Your task to perform on an android device: make emails show in primary in the gmail app Image 0: 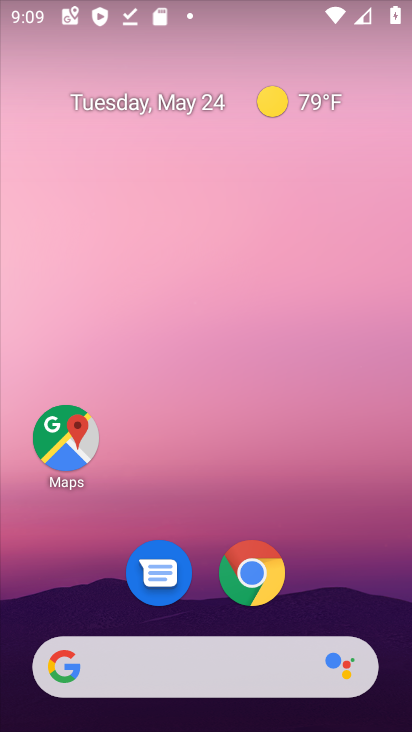
Step 0: click (243, 113)
Your task to perform on an android device: make emails show in primary in the gmail app Image 1: 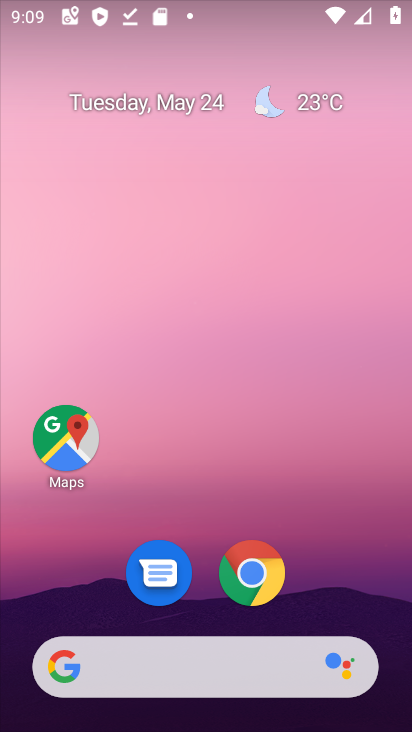
Step 1: drag from (306, 674) to (192, 244)
Your task to perform on an android device: make emails show in primary in the gmail app Image 2: 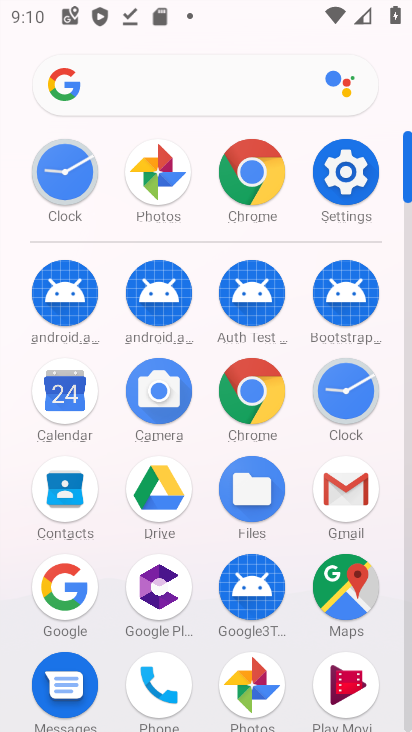
Step 2: click (325, 484)
Your task to perform on an android device: make emails show in primary in the gmail app Image 3: 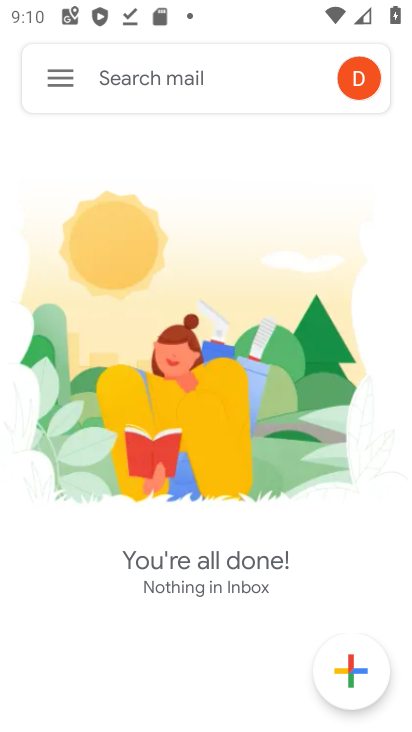
Step 3: click (69, 88)
Your task to perform on an android device: make emails show in primary in the gmail app Image 4: 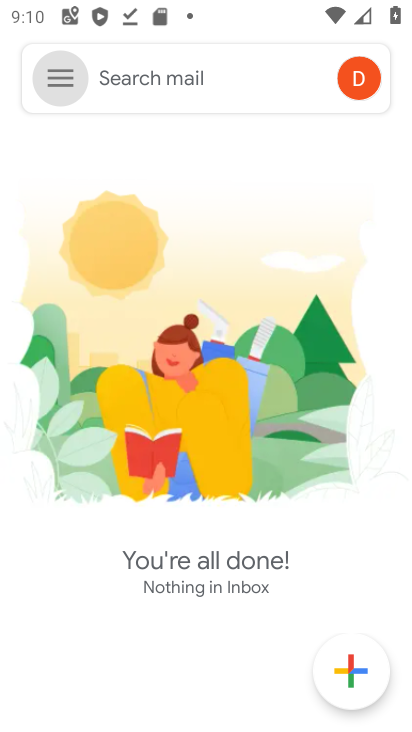
Step 4: click (69, 88)
Your task to perform on an android device: make emails show in primary in the gmail app Image 5: 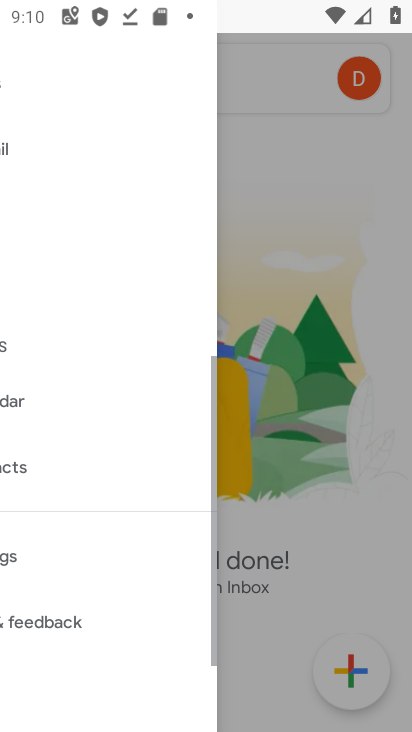
Step 5: click (69, 88)
Your task to perform on an android device: make emails show in primary in the gmail app Image 6: 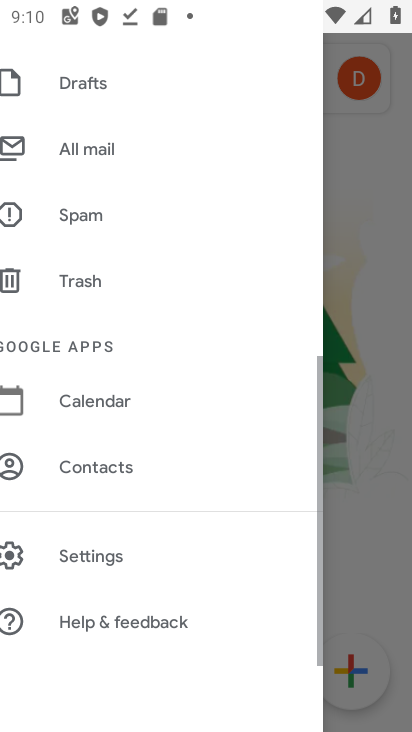
Step 6: click (69, 88)
Your task to perform on an android device: make emails show in primary in the gmail app Image 7: 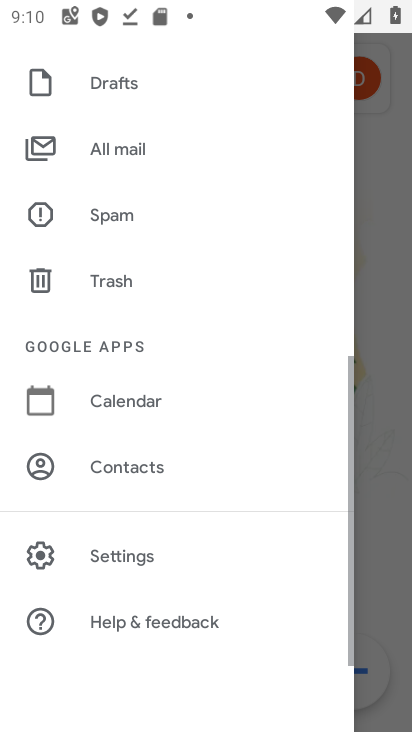
Step 7: click (69, 88)
Your task to perform on an android device: make emails show in primary in the gmail app Image 8: 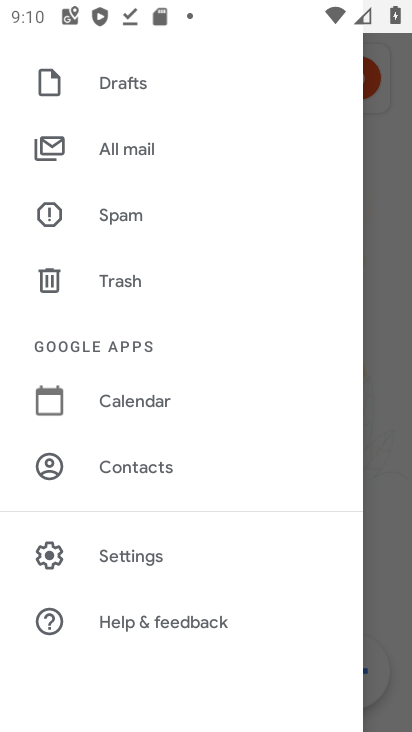
Step 8: click (125, 552)
Your task to perform on an android device: make emails show in primary in the gmail app Image 9: 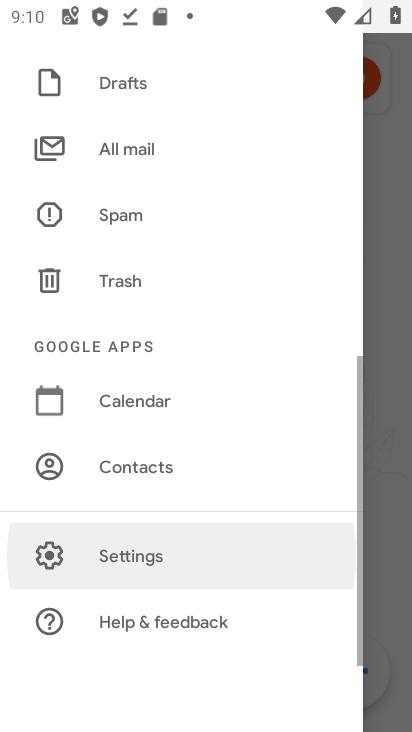
Step 9: click (125, 553)
Your task to perform on an android device: make emails show in primary in the gmail app Image 10: 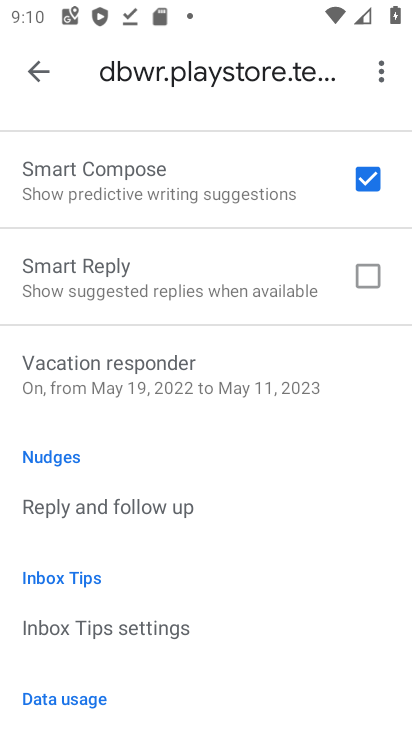
Step 10: drag from (120, 305) to (120, 525)
Your task to perform on an android device: make emails show in primary in the gmail app Image 11: 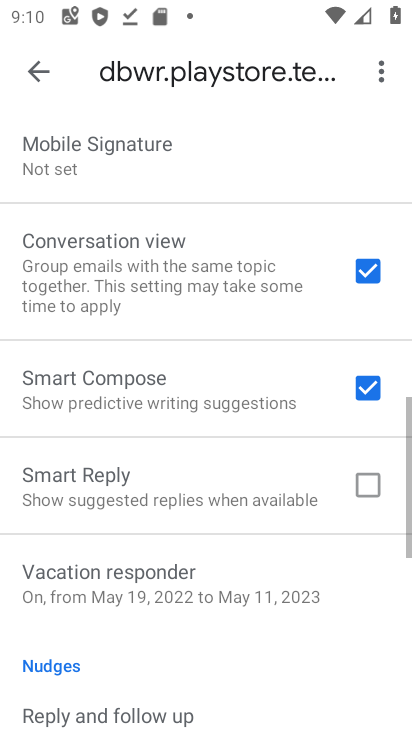
Step 11: drag from (214, 280) to (179, 628)
Your task to perform on an android device: make emails show in primary in the gmail app Image 12: 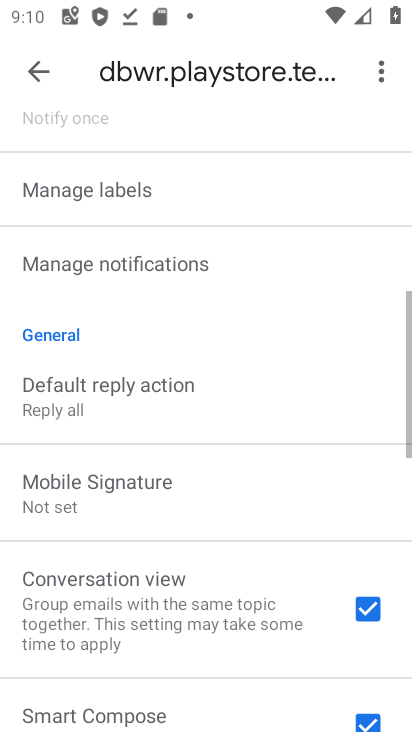
Step 12: drag from (148, 318) to (211, 456)
Your task to perform on an android device: make emails show in primary in the gmail app Image 13: 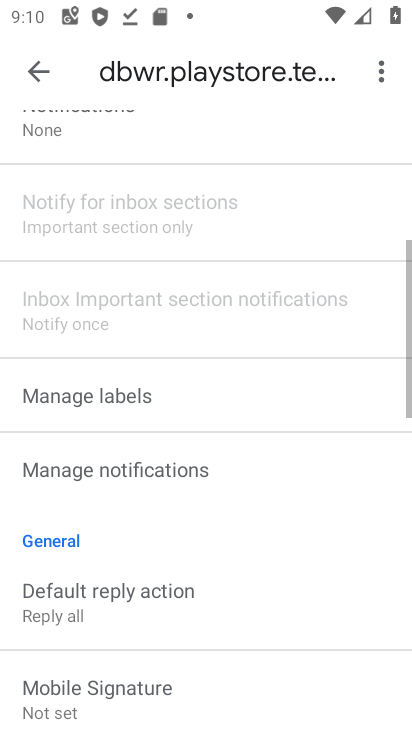
Step 13: drag from (200, 315) to (200, 676)
Your task to perform on an android device: make emails show in primary in the gmail app Image 14: 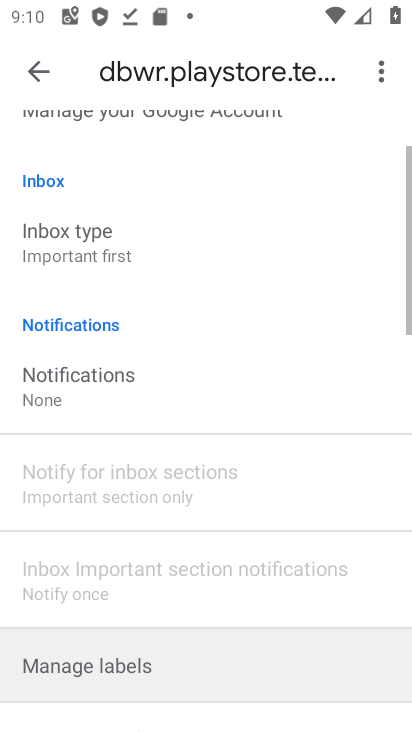
Step 14: drag from (78, 259) to (143, 598)
Your task to perform on an android device: make emails show in primary in the gmail app Image 15: 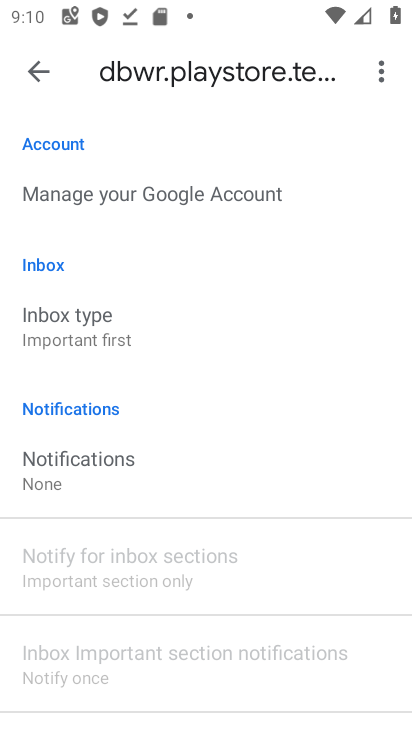
Step 15: click (66, 329)
Your task to perform on an android device: make emails show in primary in the gmail app Image 16: 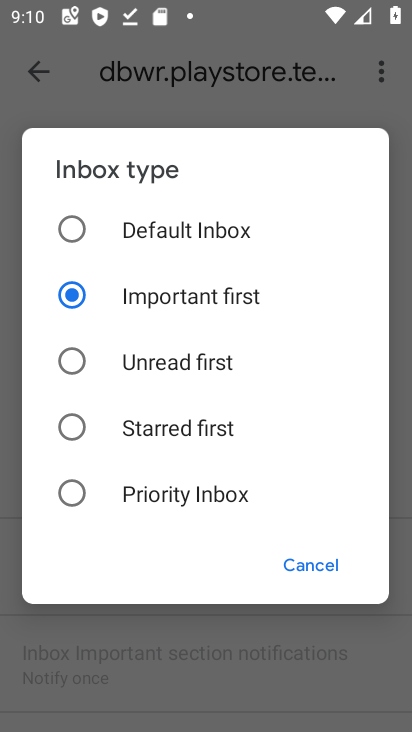
Step 16: click (72, 235)
Your task to perform on an android device: make emails show in primary in the gmail app Image 17: 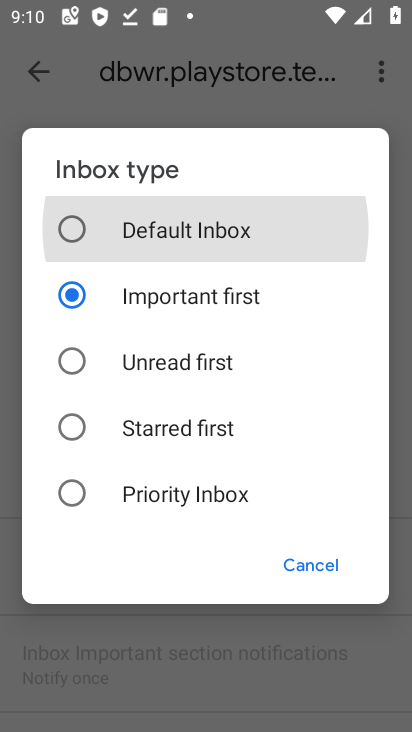
Step 17: click (77, 231)
Your task to perform on an android device: make emails show in primary in the gmail app Image 18: 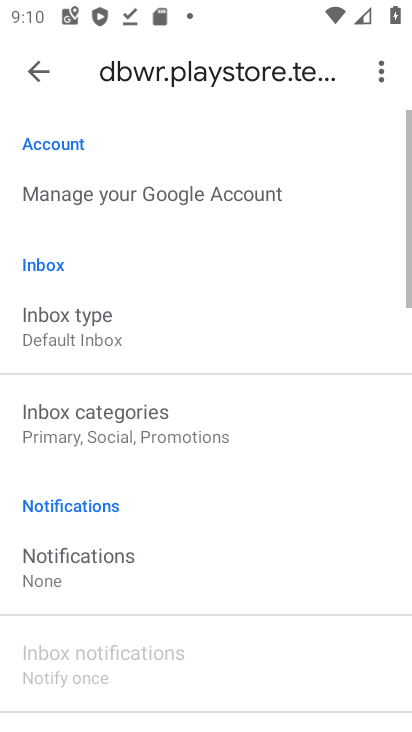
Step 18: click (79, 230)
Your task to perform on an android device: make emails show in primary in the gmail app Image 19: 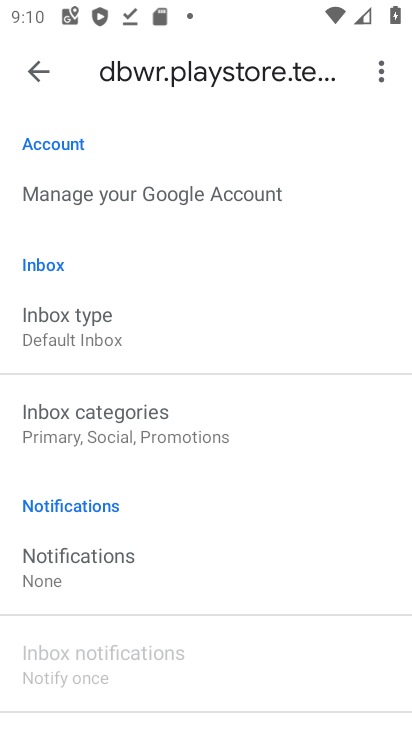
Step 19: click (105, 411)
Your task to perform on an android device: make emails show in primary in the gmail app Image 20: 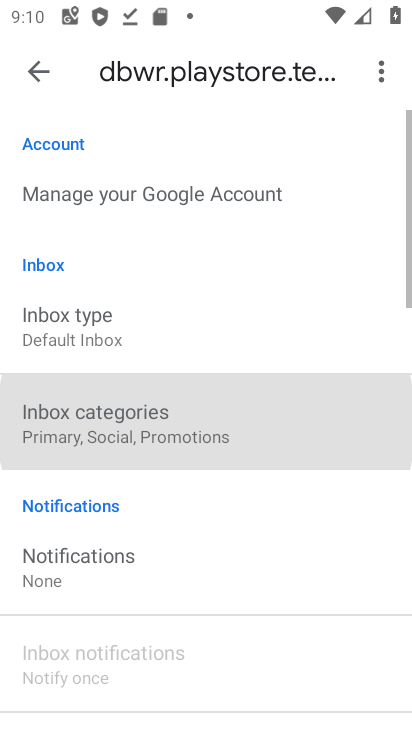
Step 20: click (111, 410)
Your task to perform on an android device: make emails show in primary in the gmail app Image 21: 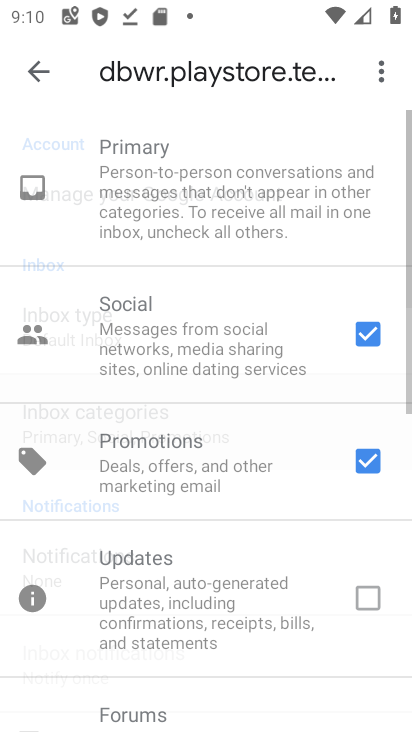
Step 21: click (111, 409)
Your task to perform on an android device: make emails show in primary in the gmail app Image 22: 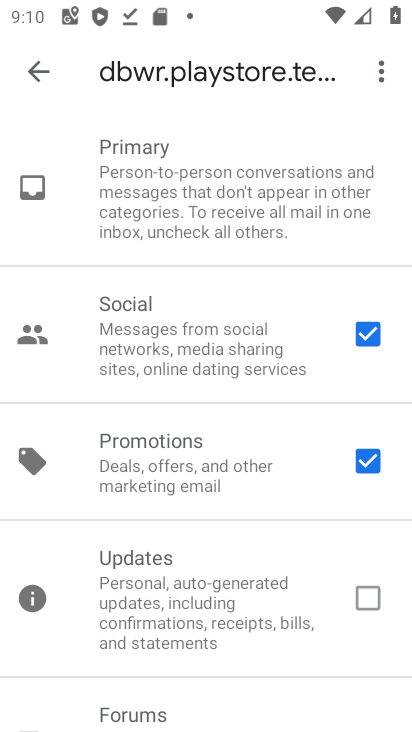
Step 22: click (130, 149)
Your task to perform on an android device: make emails show in primary in the gmail app Image 23: 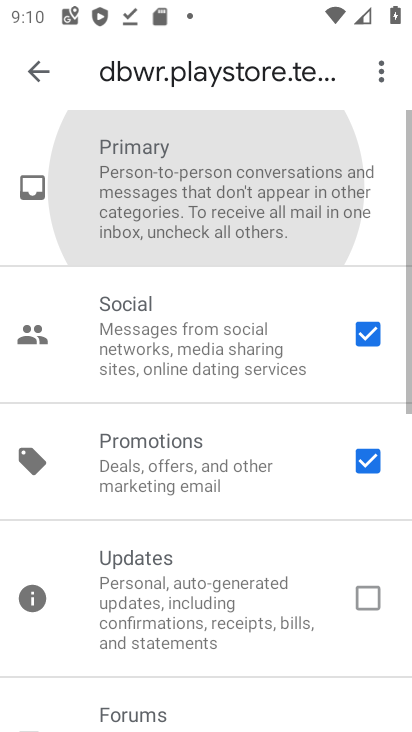
Step 23: click (130, 149)
Your task to perform on an android device: make emails show in primary in the gmail app Image 24: 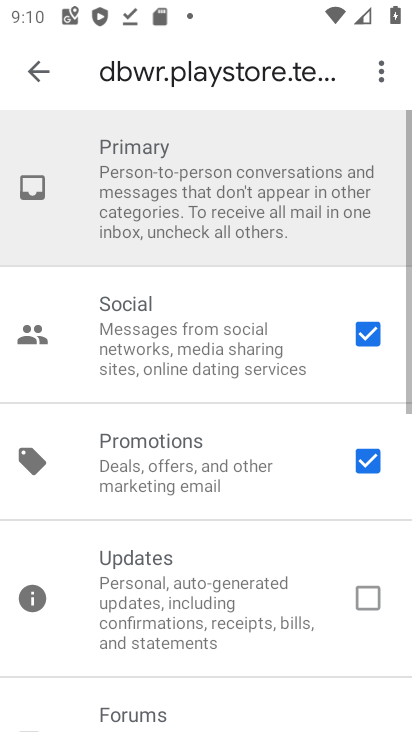
Step 24: click (130, 149)
Your task to perform on an android device: make emails show in primary in the gmail app Image 25: 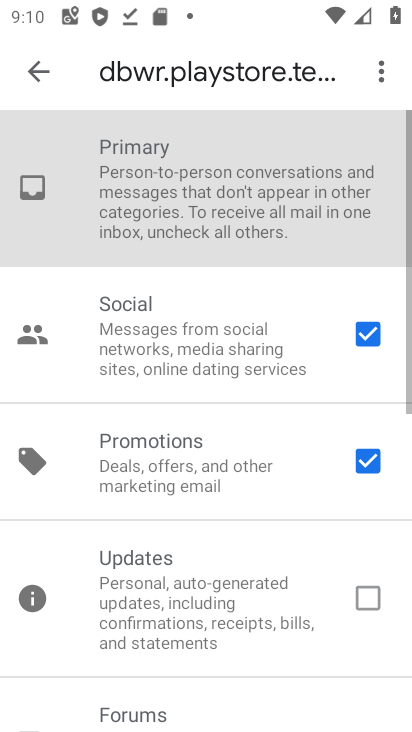
Step 25: click (130, 149)
Your task to perform on an android device: make emails show in primary in the gmail app Image 26: 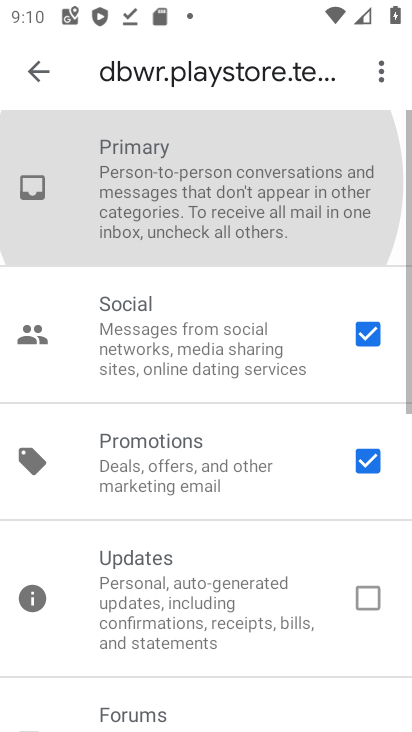
Step 26: click (130, 149)
Your task to perform on an android device: make emails show in primary in the gmail app Image 27: 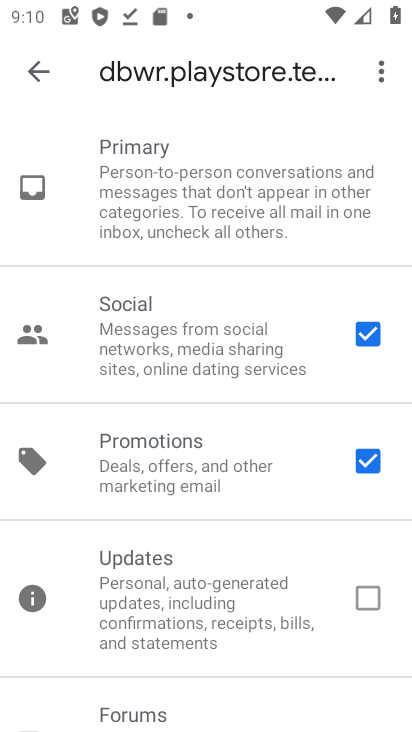
Step 27: task complete